Your task to perform on an android device: turn on the 12-hour format for clock Image 0: 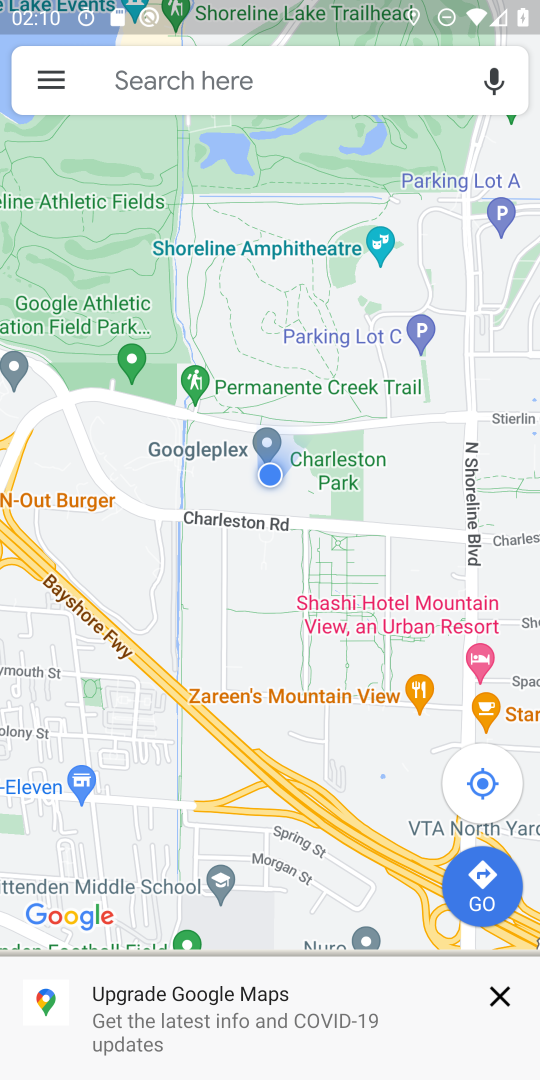
Step 0: press home button
Your task to perform on an android device: turn on the 12-hour format for clock Image 1: 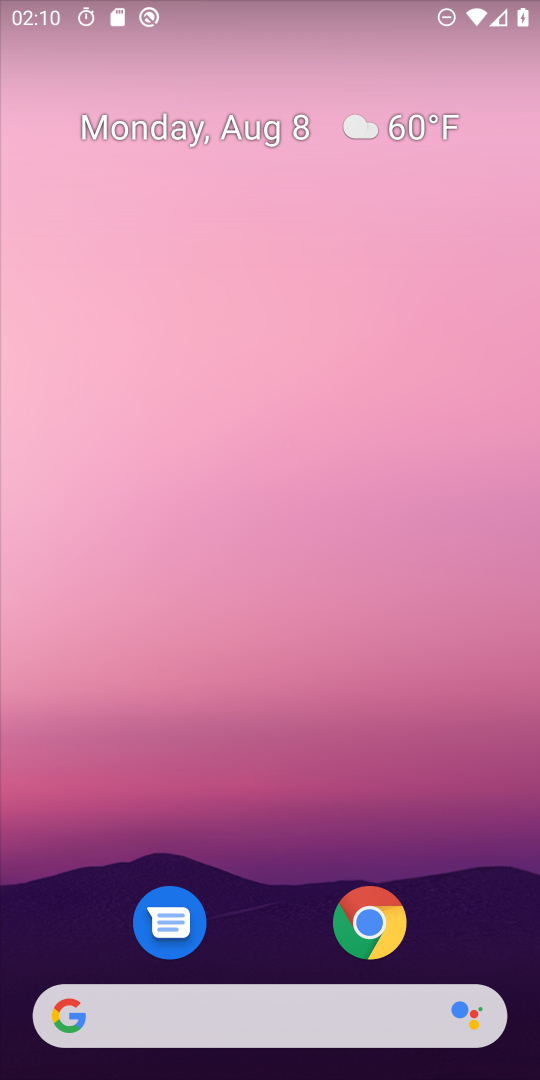
Step 1: drag from (298, 896) to (409, 96)
Your task to perform on an android device: turn on the 12-hour format for clock Image 2: 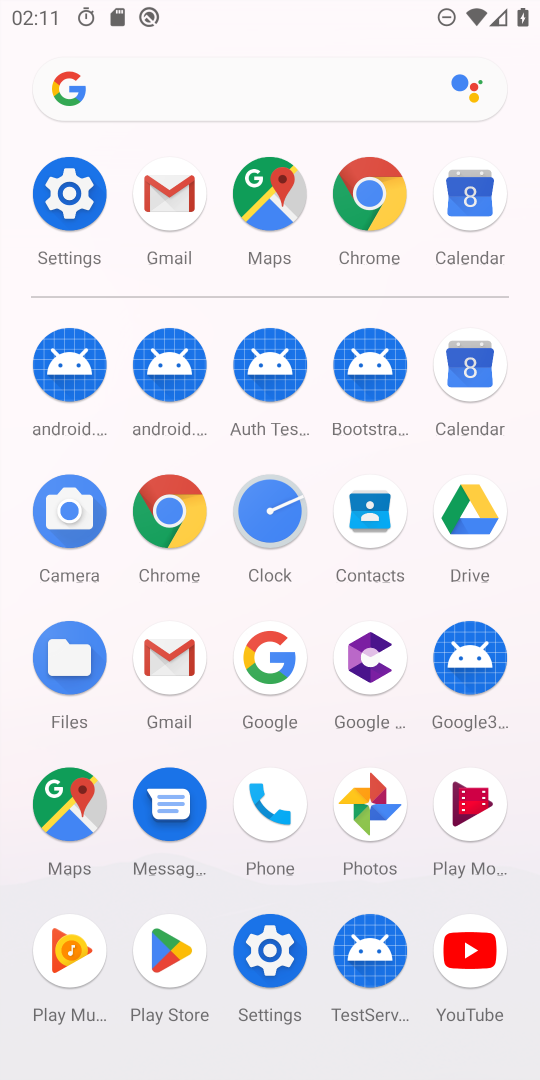
Step 2: click (266, 502)
Your task to perform on an android device: turn on the 12-hour format for clock Image 3: 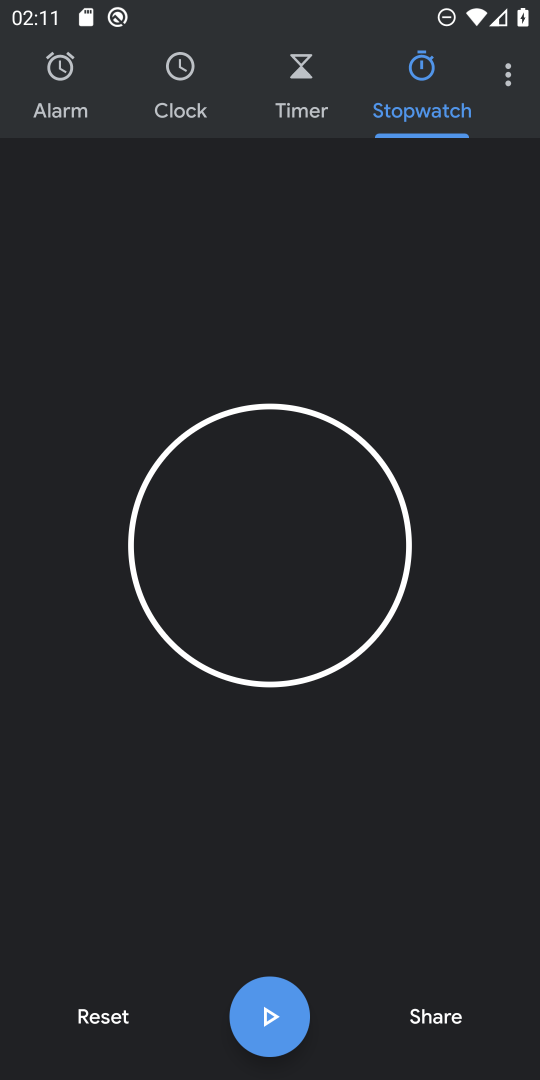
Step 3: click (502, 67)
Your task to perform on an android device: turn on the 12-hour format for clock Image 4: 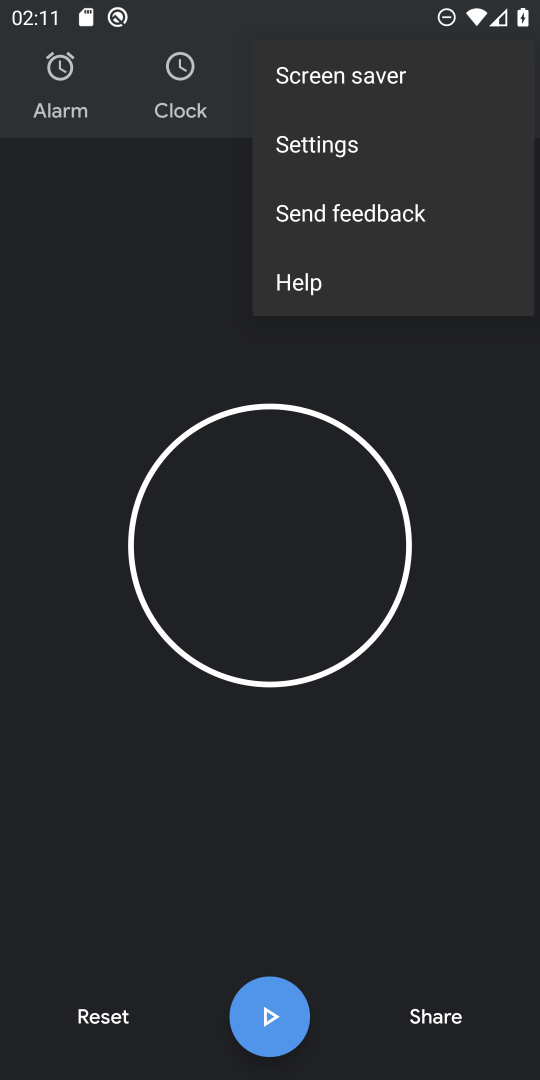
Step 4: click (341, 136)
Your task to perform on an android device: turn on the 12-hour format for clock Image 5: 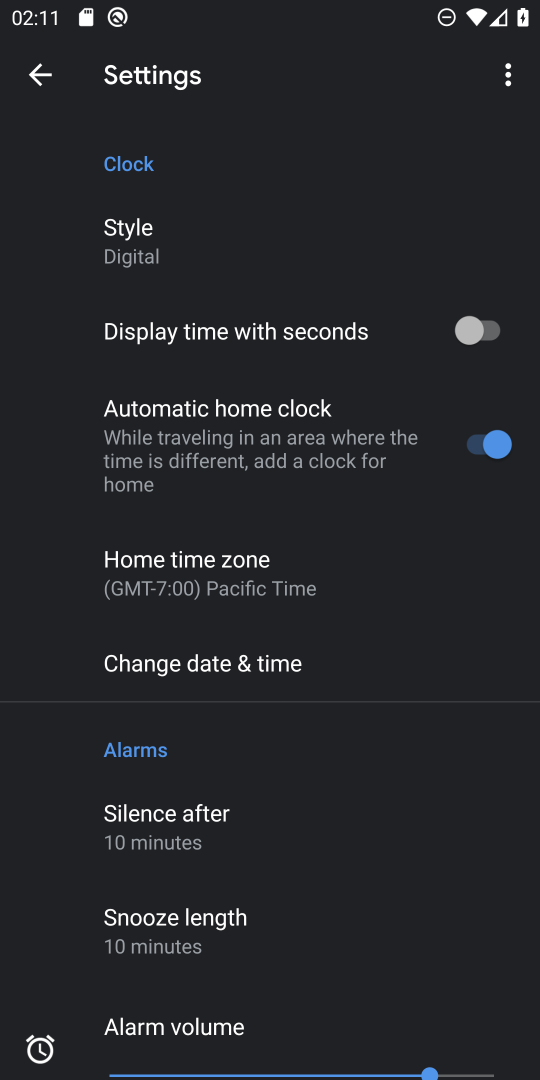
Step 5: click (208, 667)
Your task to perform on an android device: turn on the 12-hour format for clock Image 6: 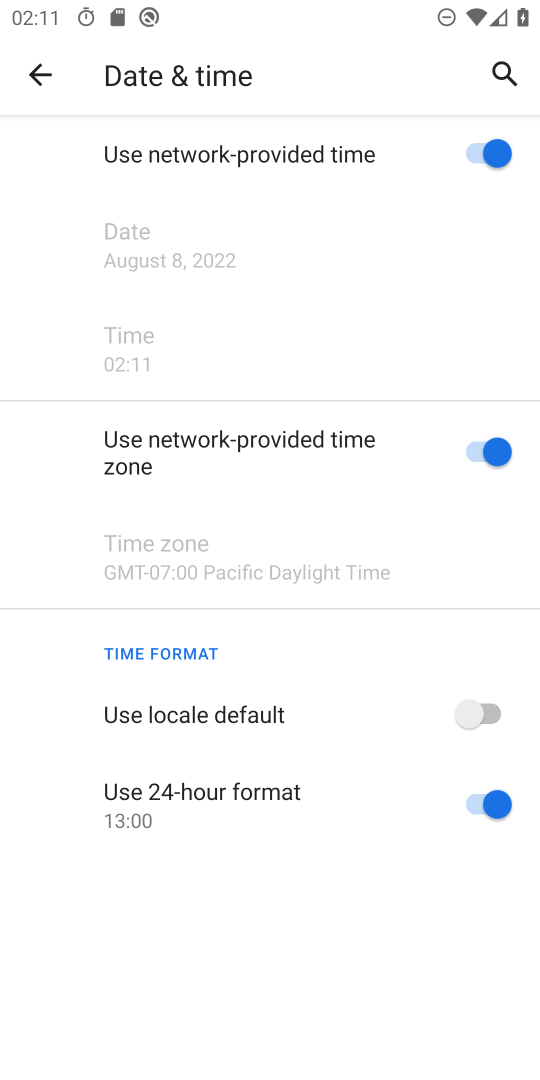
Step 6: click (474, 704)
Your task to perform on an android device: turn on the 12-hour format for clock Image 7: 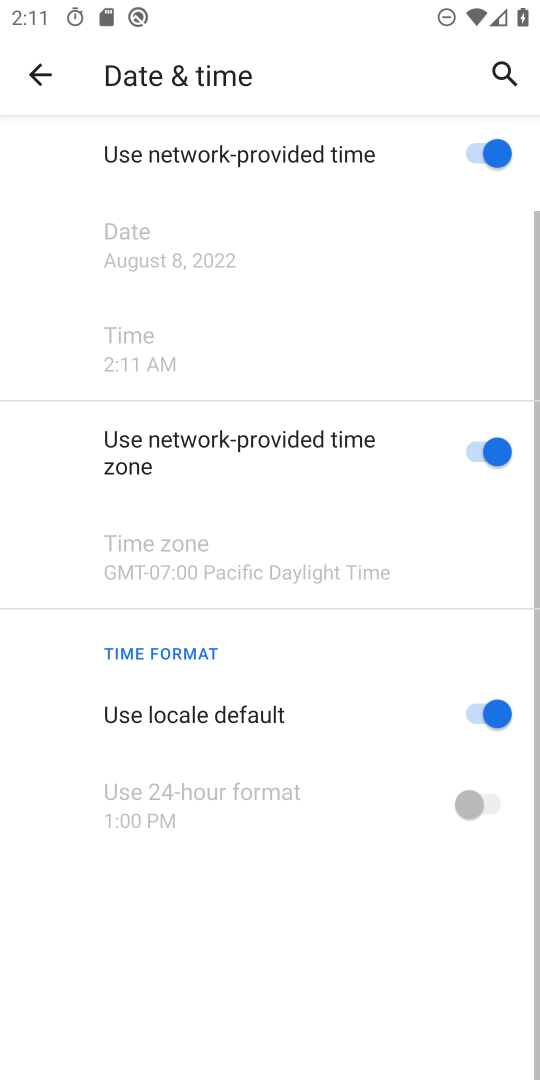
Step 7: task complete